Your task to perform on an android device: Open CNN.com Image 0: 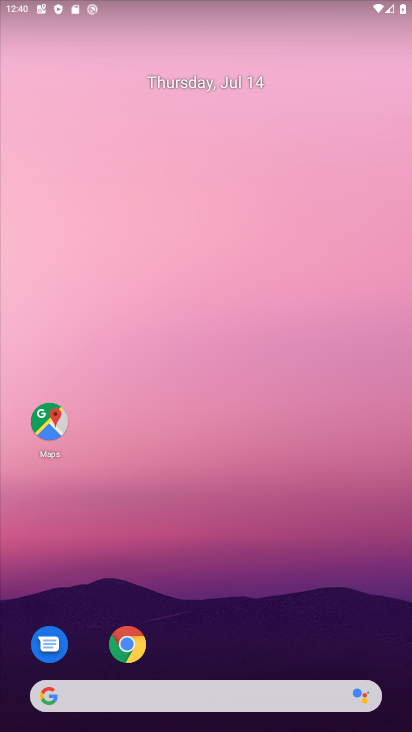
Step 0: drag from (196, 574) to (223, 109)
Your task to perform on an android device: Open CNN.com Image 1: 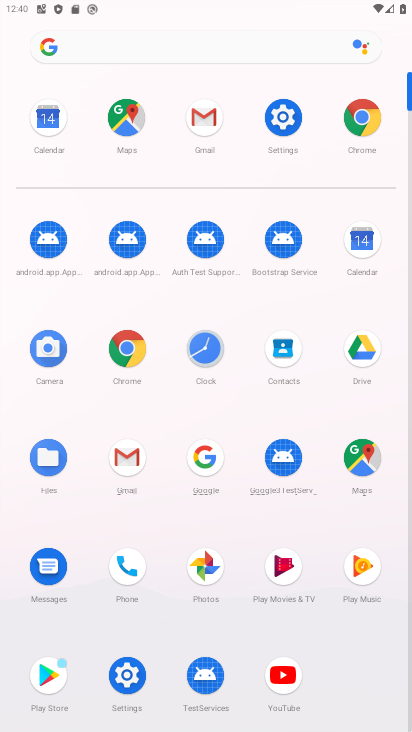
Step 1: click (117, 359)
Your task to perform on an android device: Open CNN.com Image 2: 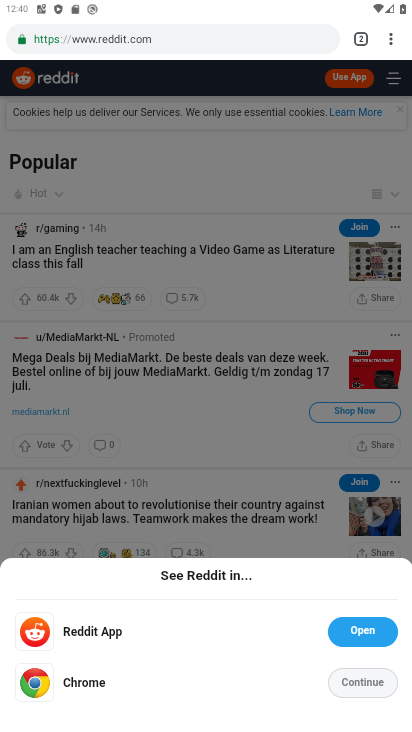
Step 2: type "cnn.com"
Your task to perform on an android device: Open CNN.com Image 3: 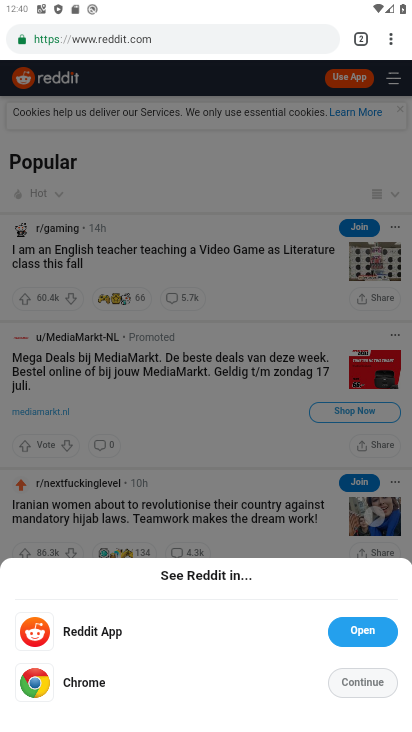
Step 3: click (188, 25)
Your task to perform on an android device: Open CNN.com Image 4: 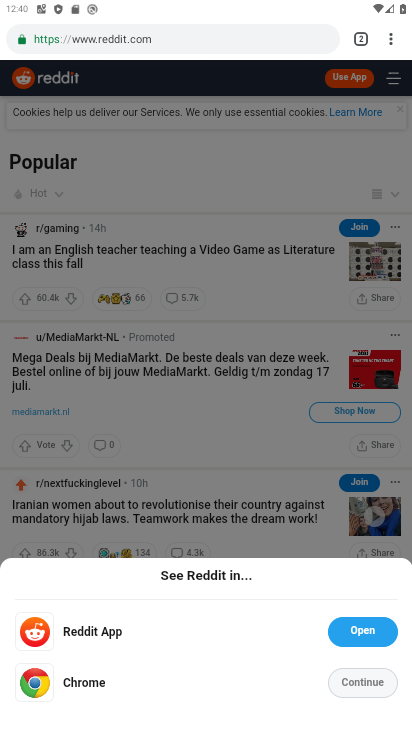
Step 4: click (188, 32)
Your task to perform on an android device: Open CNN.com Image 5: 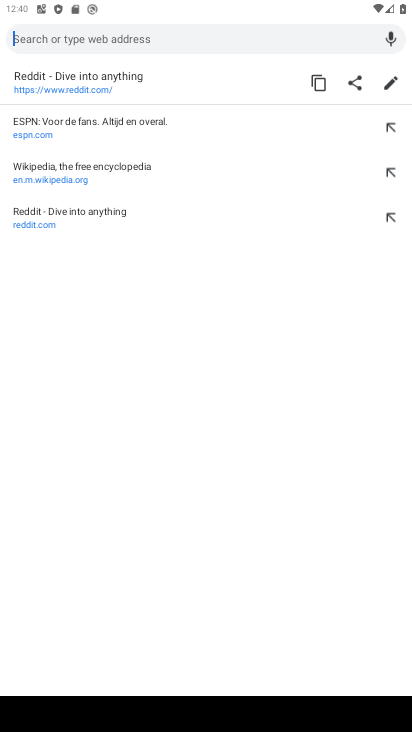
Step 5: type ""
Your task to perform on an android device: Open CNN.com Image 6: 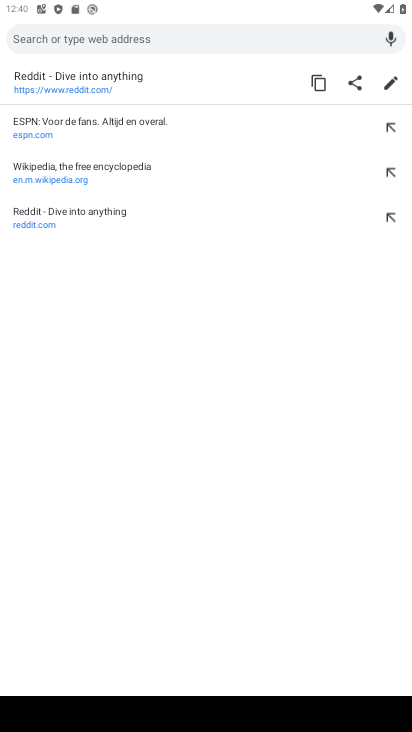
Step 6: type "cnn.com"
Your task to perform on an android device: Open CNN.com Image 7: 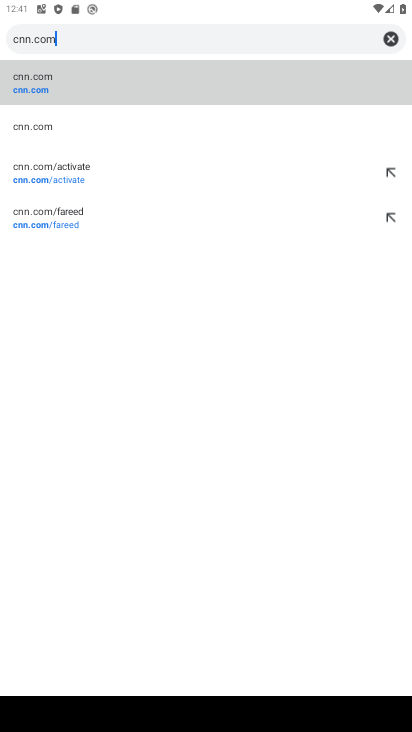
Step 7: click (172, 80)
Your task to perform on an android device: Open CNN.com Image 8: 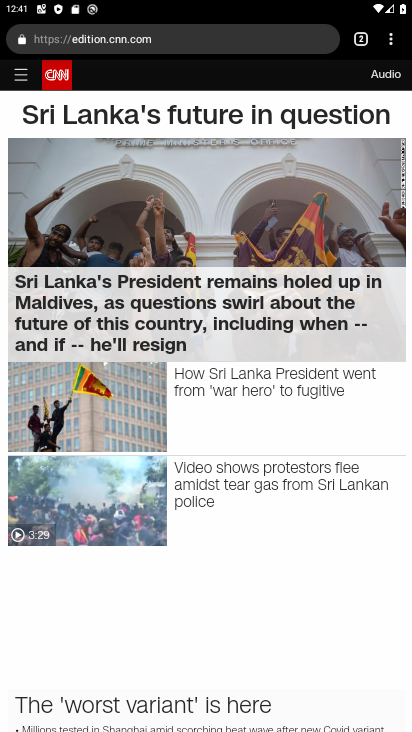
Step 8: task complete